Your task to perform on an android device: turn off wifi Image 0: 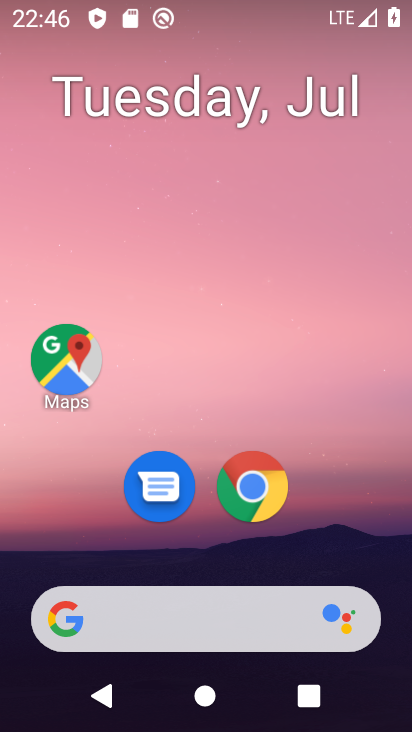
Step 0: press home button
Your task to perform on an android device: turn off wifi Image 1: 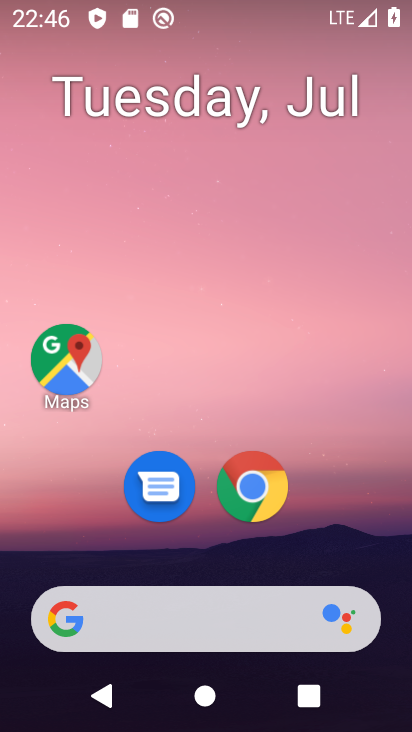
Step 1: drag from (343, 546) to (345, 129)
Your task to perform on an android device: turn off wifi Image 2: 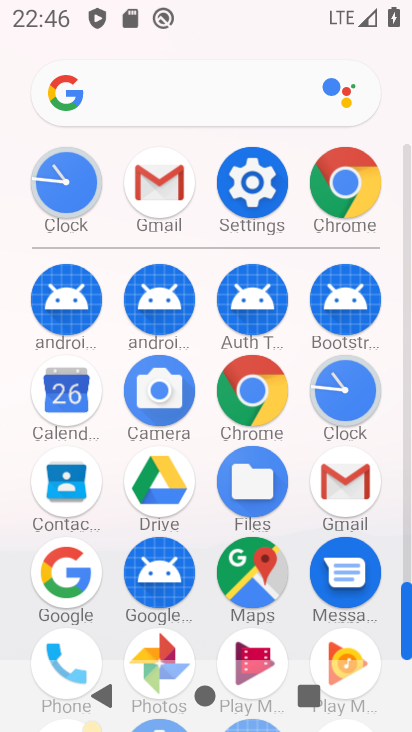
Step 2: click (252, 184)
Your task to perform on an android device: turn off wifi Image 3: 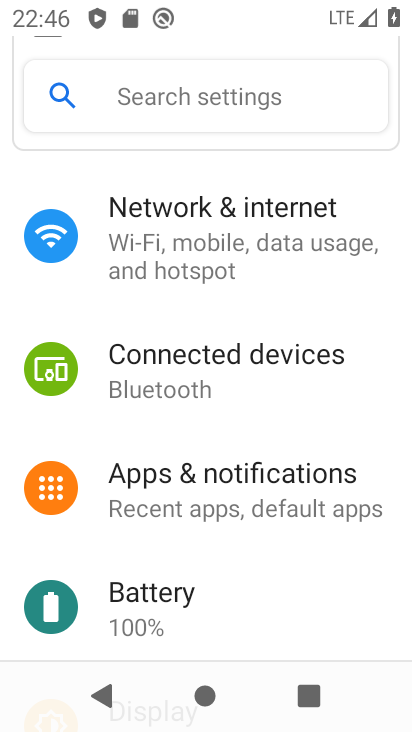
Step 3: drag from (279, 596) to (285, 440)
Your task to perform on an android device: turn off wifi Image 4: 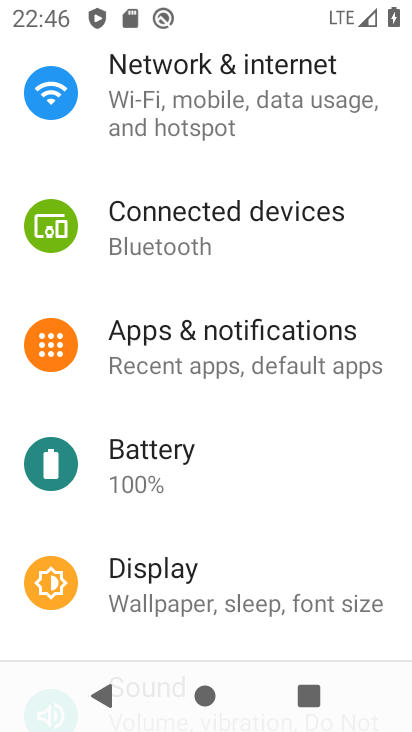
Step 4: drag from (307, 521) to (299, 396)
Your task to perform on an android device: turn off wifi Image 5: 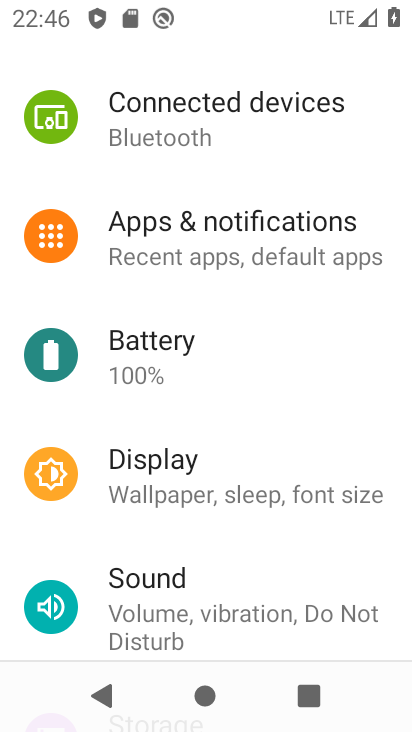
Step 5: drag from (295, 568) to (294, 437)
Your task to perform on an android device: turn off wifi Image 6: 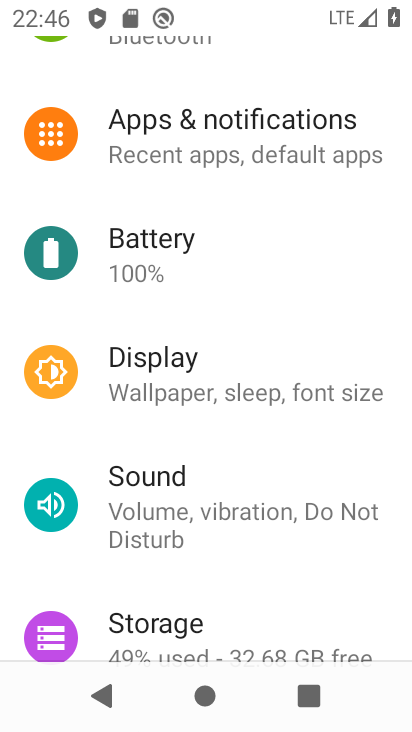
Step 6: drag from (326, 525) to (311, 325)
Your task to perform on an android device: turn off wifi Image 7: 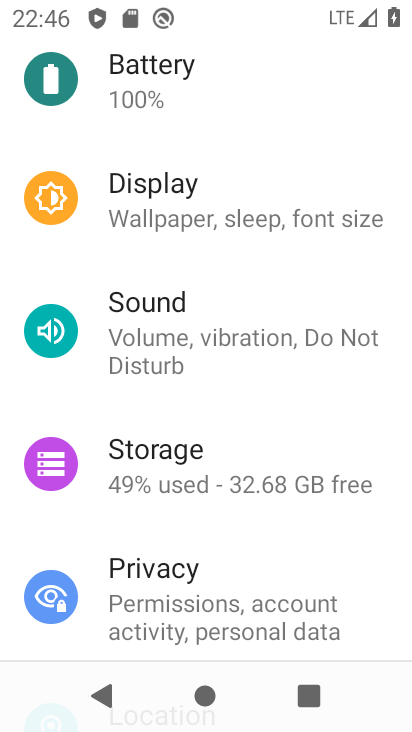
Step 7: drag from (295, 478) to (294, 413)
Your task to perform on an android device: turn off wifi Image 8: 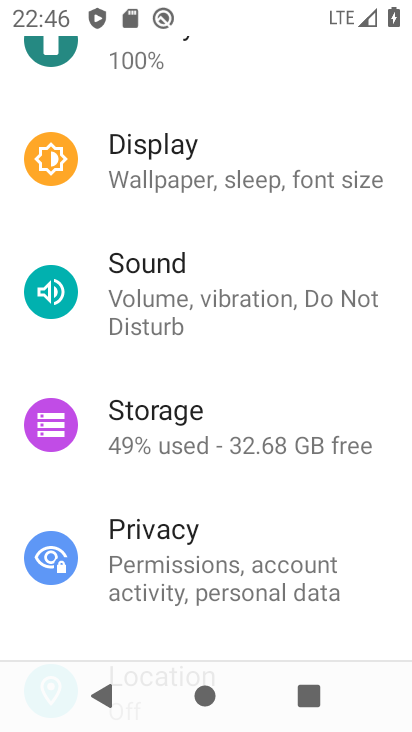
Step 8: drag from (280, 505) to (283, 386)
Your task to perform on an android device: turn off wifi Image 9: 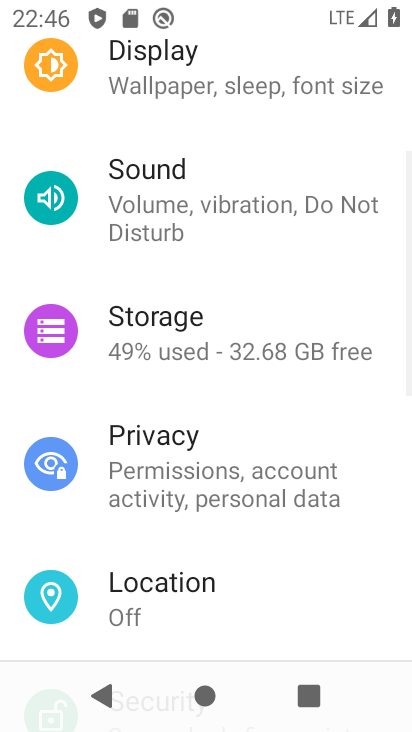
Step 9: drag from (297, 504) to (304, 375)
Your task to perform on an android device: turn off wifi Image 10: 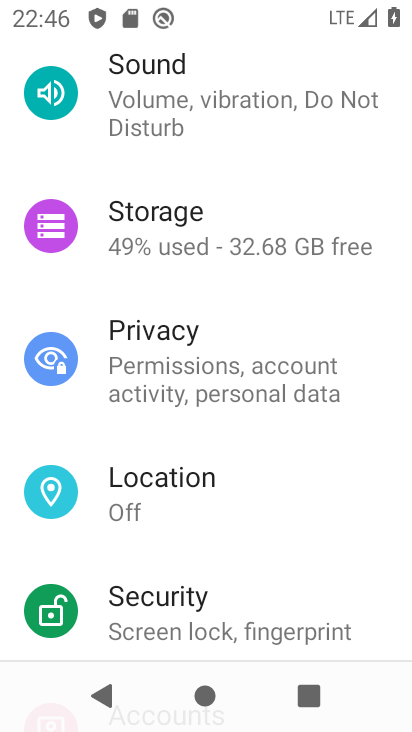
Step 10: drag from (306, 515) to (308, 452)
Your task to perform on an android device: turn off wifi Image 11: 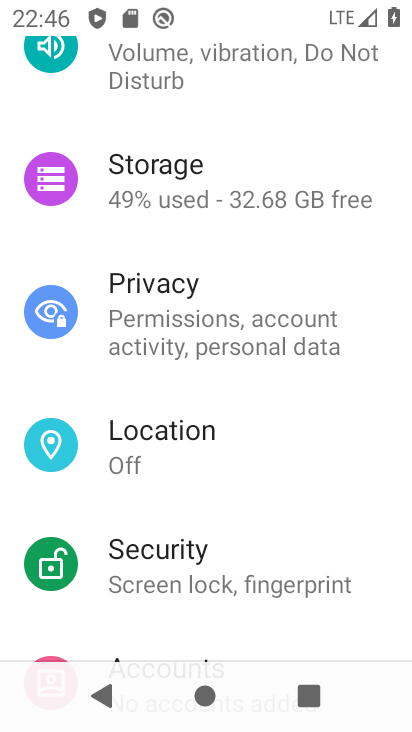
Step 11: drag from (318, 248) to (327, 386)
Your task to perform on an android device: turn off wifi Image 12: 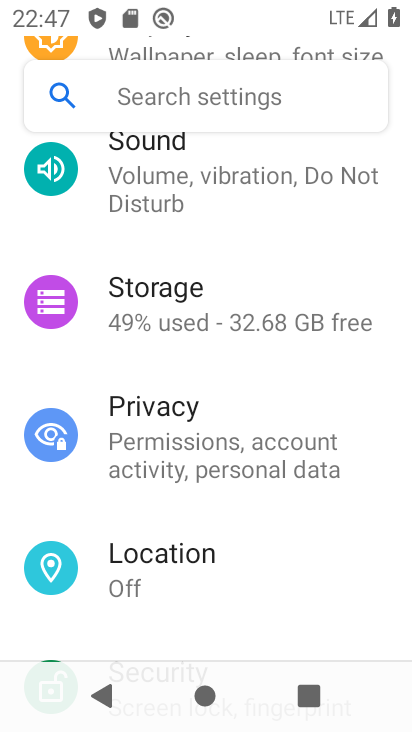
Step 12: drag from (329, 263) to (332, 404)
Your task to perform on an android device: turn off wifi Image 13: 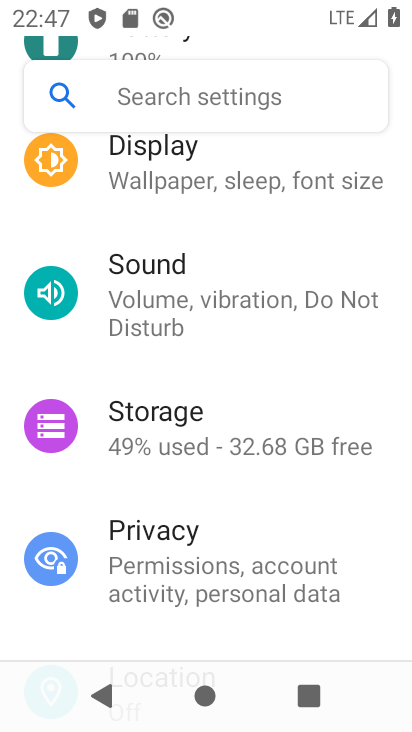
Step 13: drag from (326, 348) to (336, 465)
Your task to perform on an android device: turn off wifi Image 14: 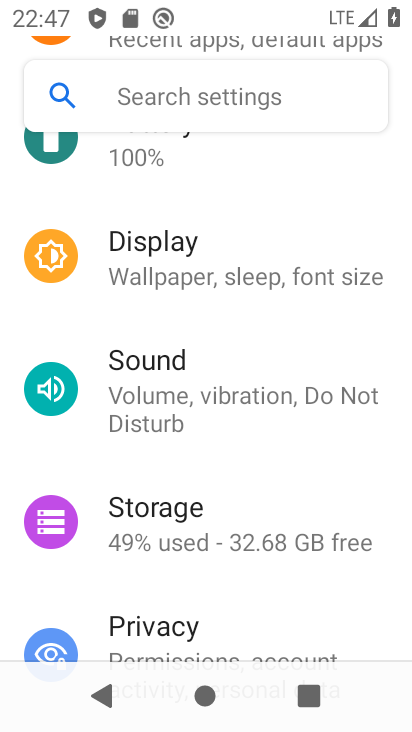
Step 14: drag from (332, 232) to (341, 412)
Your task to perform on an android device: turn off wifi Image 15: 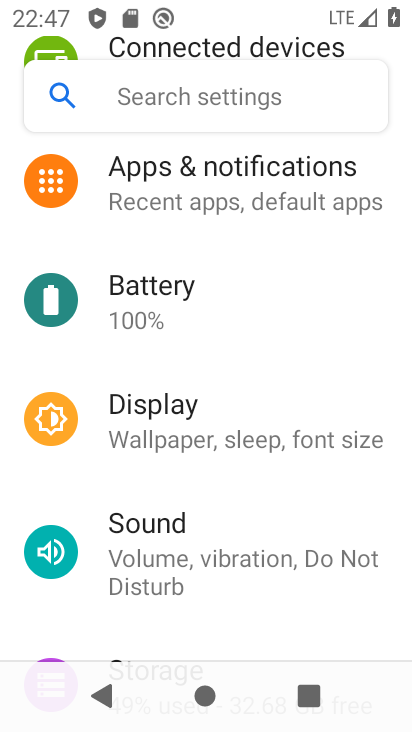
Step 15: drag from (323, 234) to (321, 459)
Your task to perform on an android device: turn off wifi Image 16: 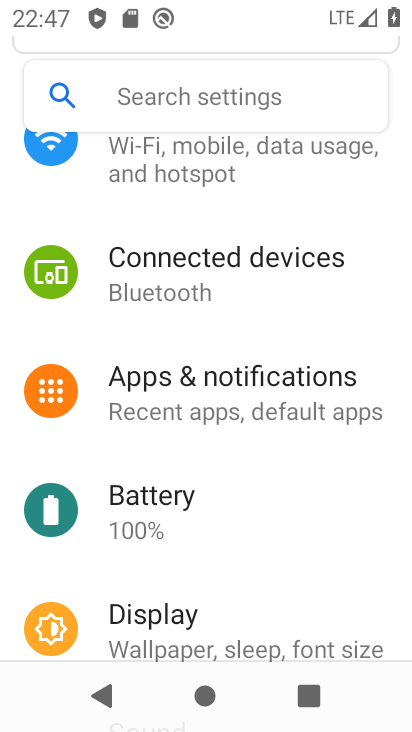
Step 16: drag from (298, 215) to (307, 418)
Your task to perform on an android device: turn off wifi Image 17: 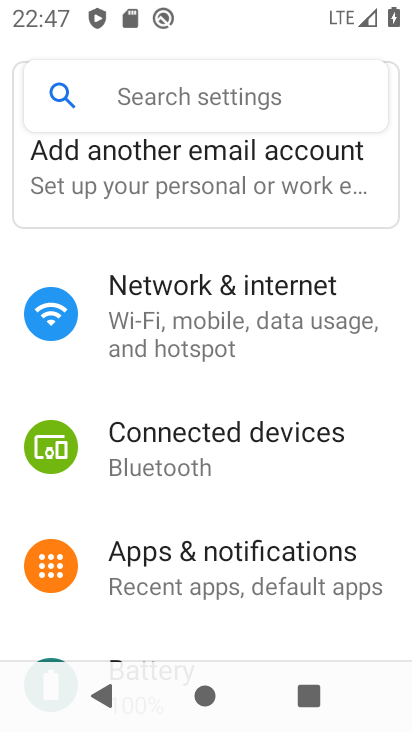
Step 17: click (284, 314)
Your task to perform on an android device: turn off wifi Image 18: 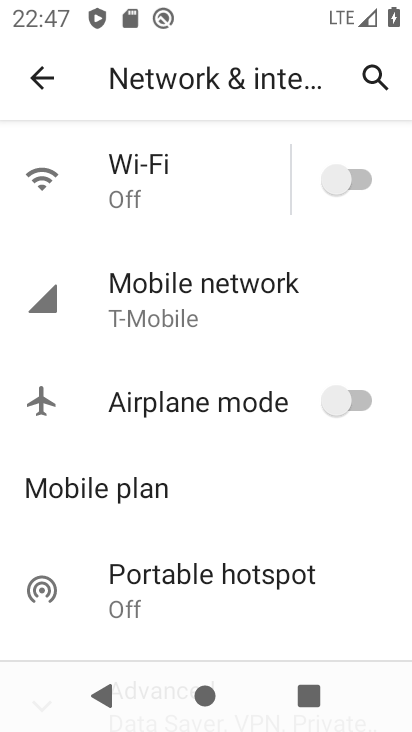
Step 18: task complete